Your task to perform on an android device: Open CNN.com Image 0: 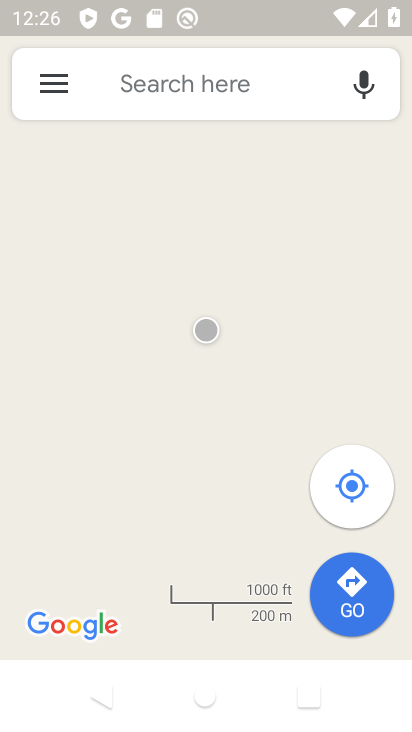
Step 0: press home button
Your task to perform on an android device: Open CNN.com Image 1: 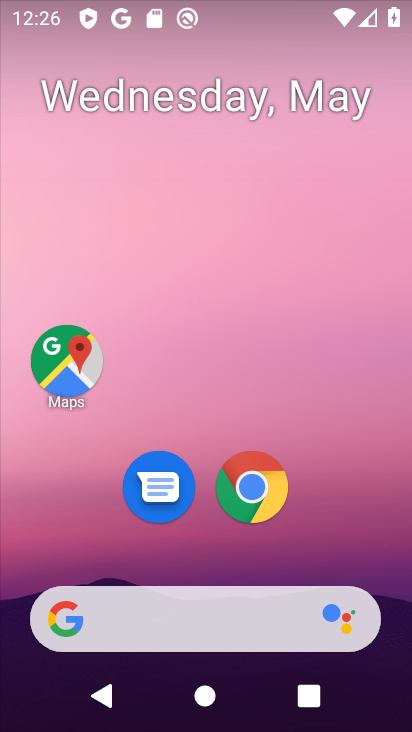
Step 1: click (272, 494)
Your task to perform on an android device: Open CNN.com Image 2: 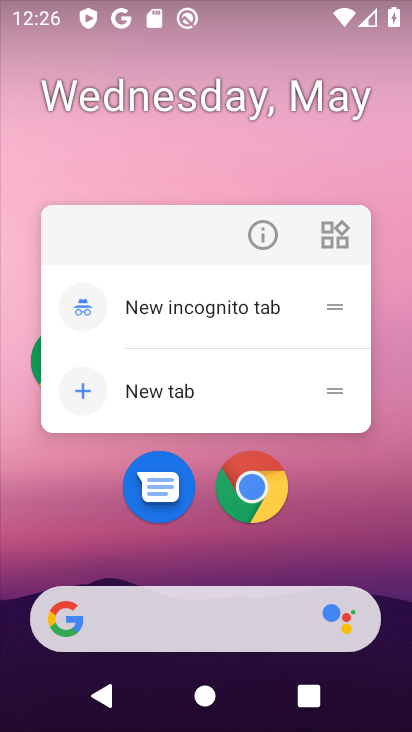
Step 2: click (267, 495)
Your task to perform on an android device: Open CNN.com Image 3: 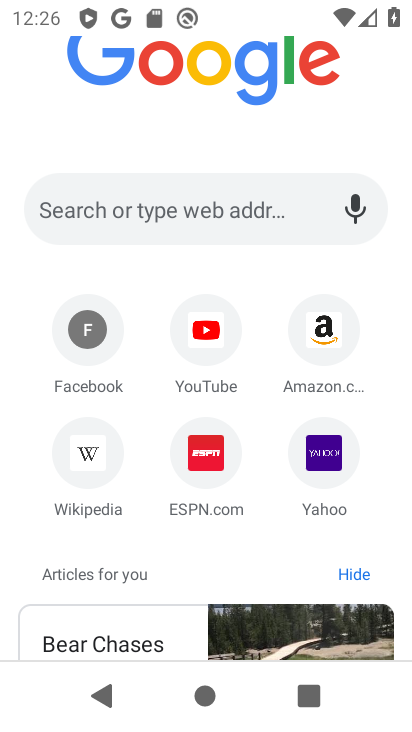
Step 3: click (208, 184)
Your task to perform on an android device: Open CNN.com Image 4: 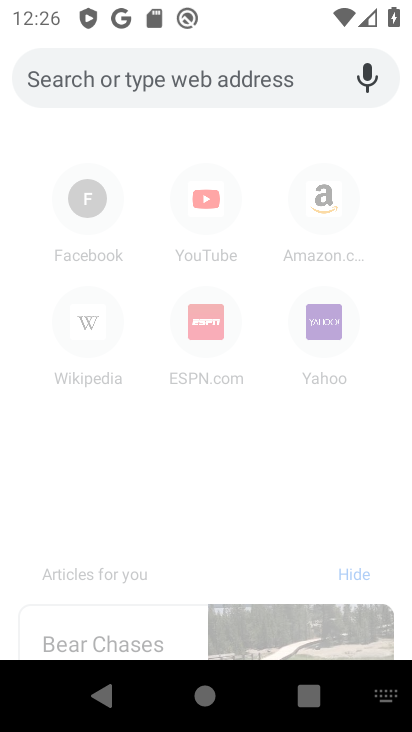
Step 4: type "CNN.com"
Your task to perform on an android device: Open CNN.com Image 5: 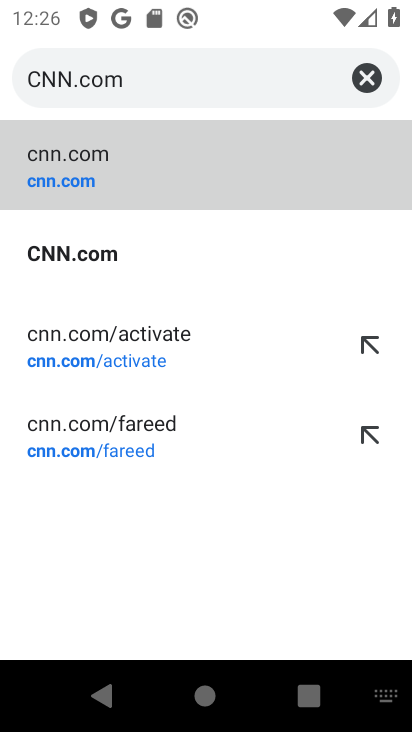
Step 5: click (110, 250)
Your task to perform on an android device: Open CNN.com Image 6: 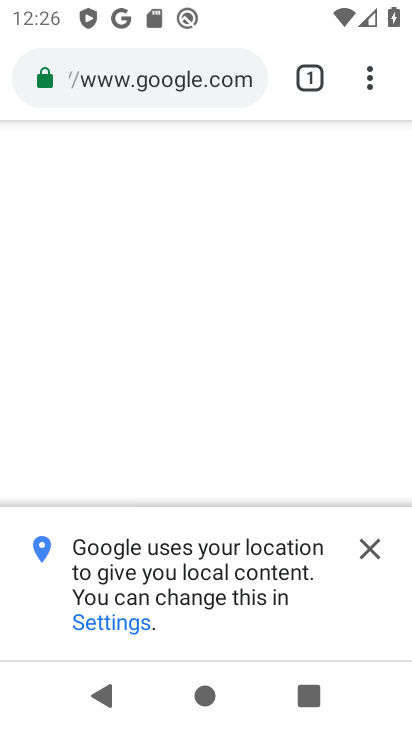
Step 6: click (373, 535)
Your task to perform on an android device: Open CNN.com Image 7: 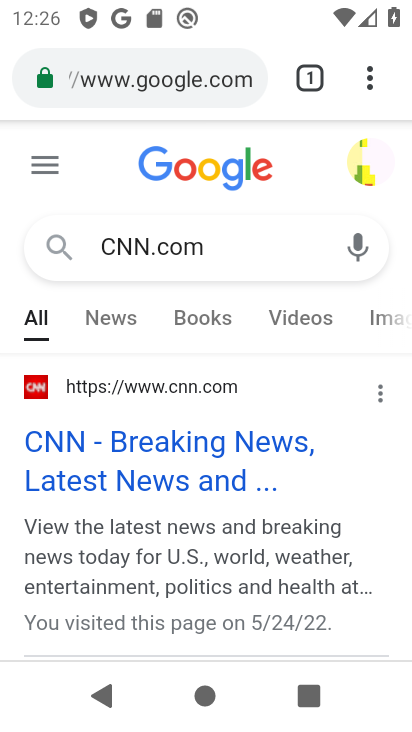
Step 7: task complete